Your task to perform on an android device: delete the emails in spam in the gmail app Image 0: 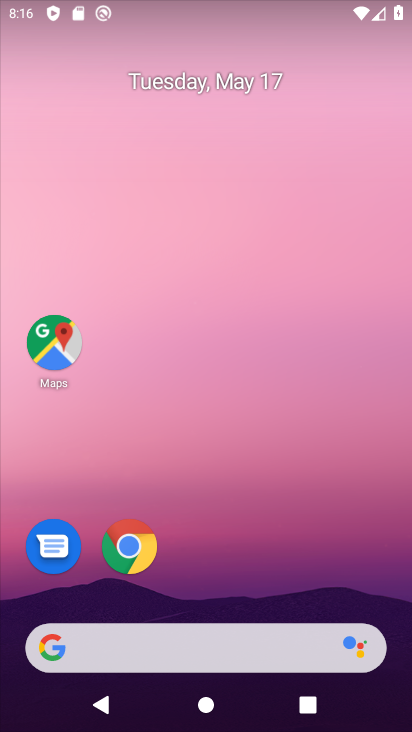
Step 0: drag from (210, 596) to (352, 96)
Your task to perform on an android device: delete the emails in spam in the gmail app Image 1: 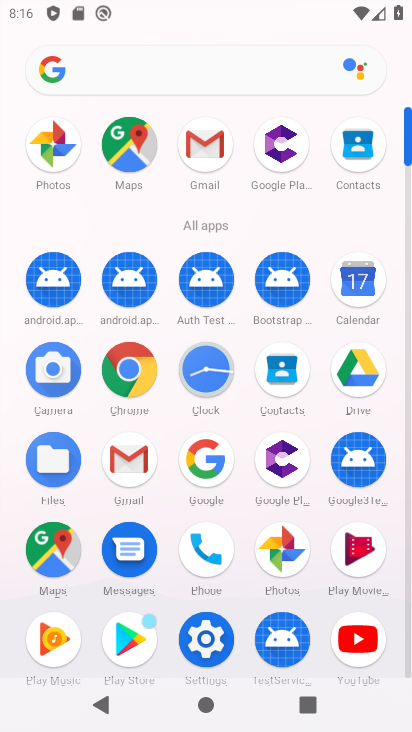
Step 1: click (128, 476)
Your task to perform on an android device: delete the emails in spam in the gmail app Image 2: 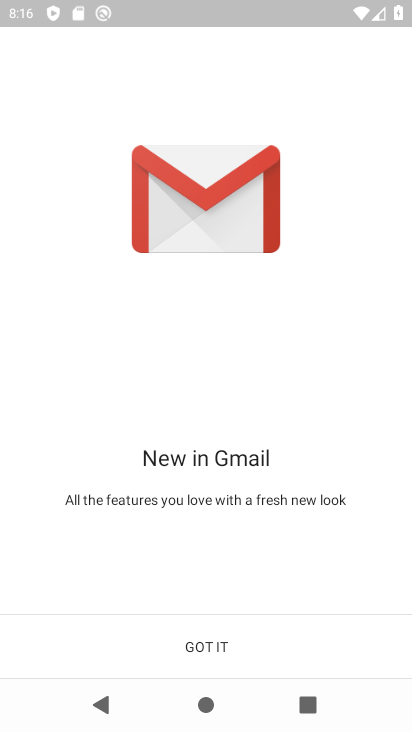
Step 2: click (228, 646)
Your task to perform on an android device: delete the emails in spam in the gmail app Image 3: 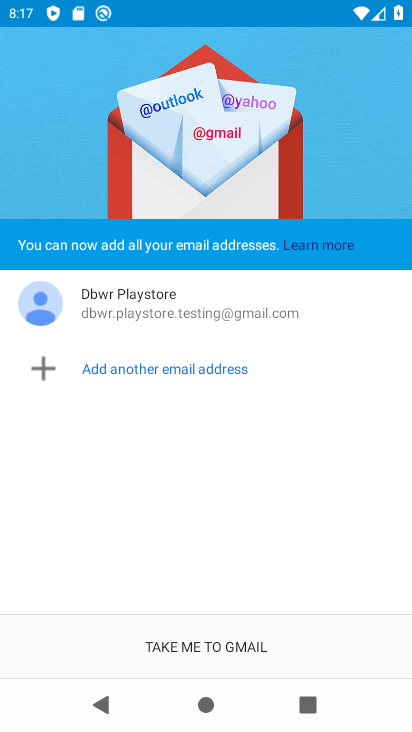
Step 3: click (246, 645)
Your task to perform on an android device: delete the emails in spam in the gmail app Image 4: 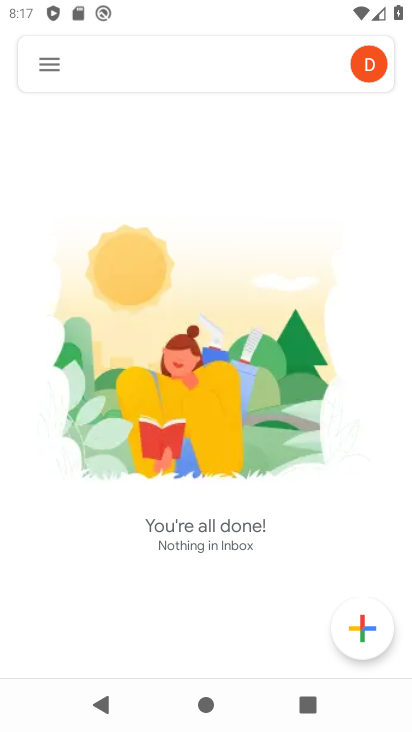
Step 4: click (61, 74)
Your task to perform on an android device: delete the emails in spam in the gmail app Image 5: 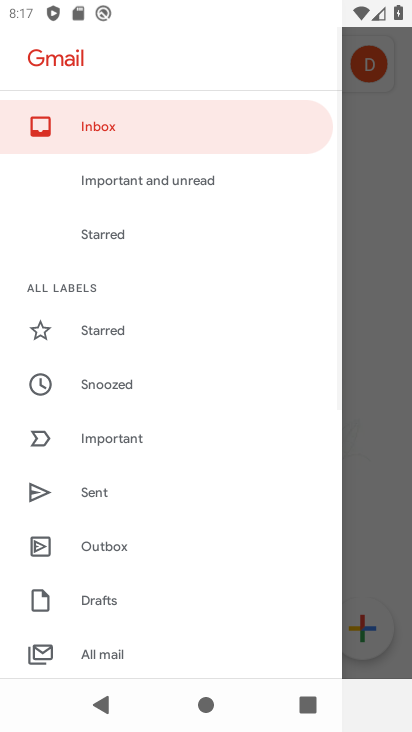
Step 5: drag from (109, 577) to (203, 256)
Your task to perform on an android device: delete the emails in spam in the gmail app Image 6: 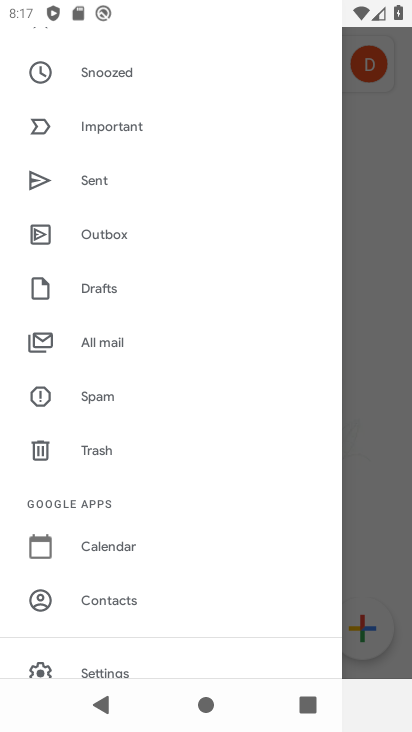
Step 6: click (136, 397)
Your task to perform on an android device: delete the emails in spam in the gmail app Image 7: 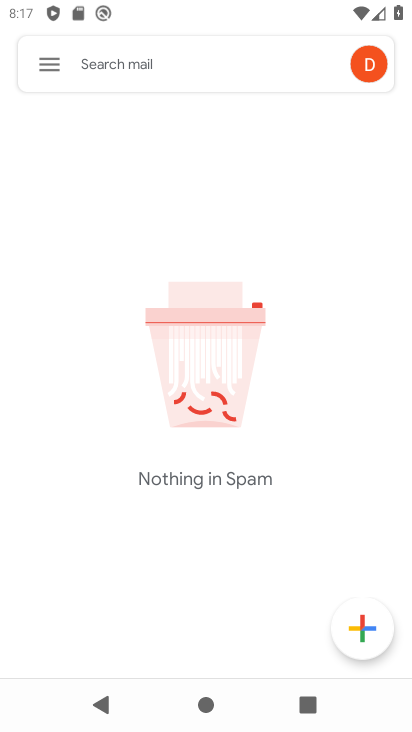
Step 7: task complete